Your task to perform on an android device: Search for pizza restaurants on Maps Image 0: 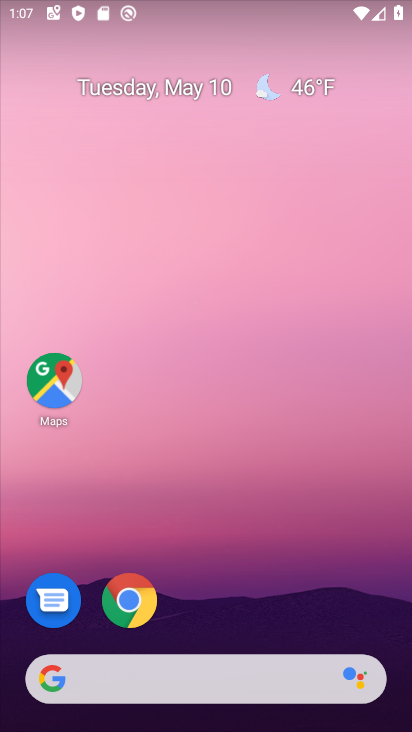
Step 0: press home button
Your task to perform on an android device: Search for pizza restaurants on Maps Image 1: 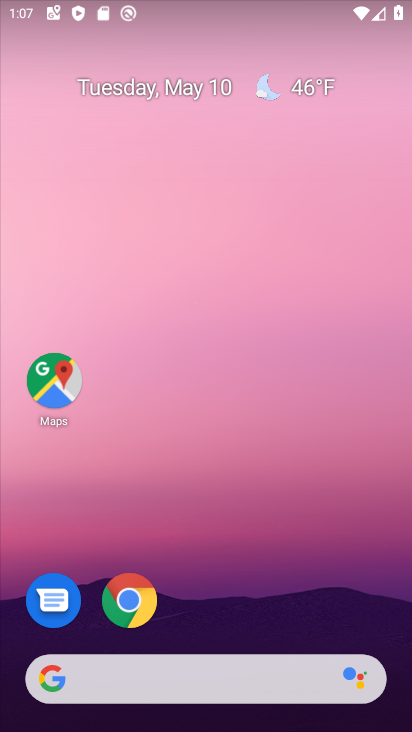
Step 1: drag from (197, 621) to (251, 155)
Your task to perform on an android device: Search for pizza restaurants on Maps Image 2: 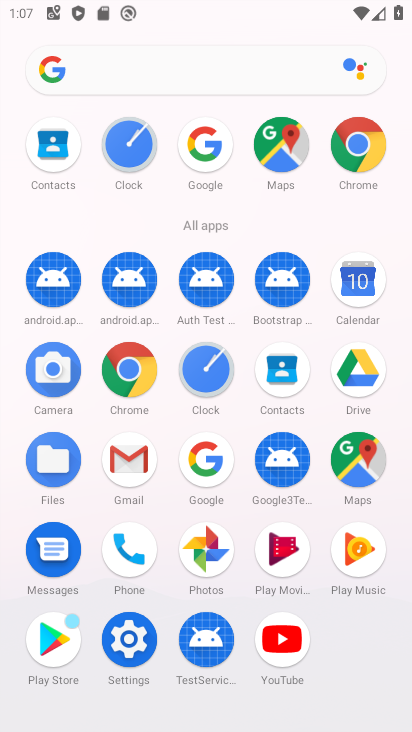
Step 2: click (287, 149)
Your task to perform on an android device: Search for pizza restaurants on Maps Image 3: 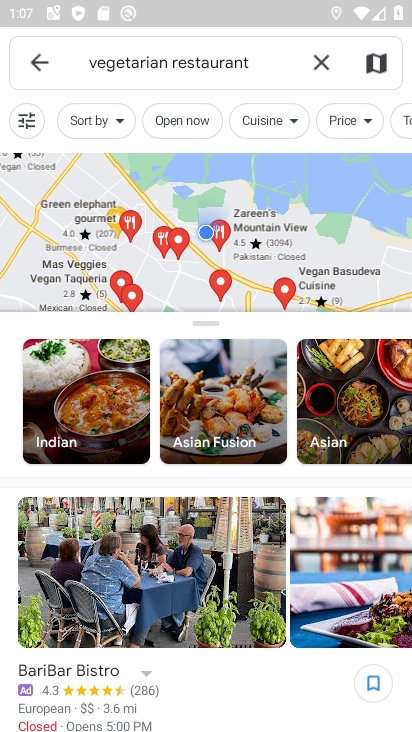
Step 3: click (317, 66)
Your task to perform on an android device: Search for pizza restaurants on Maps Image 4: 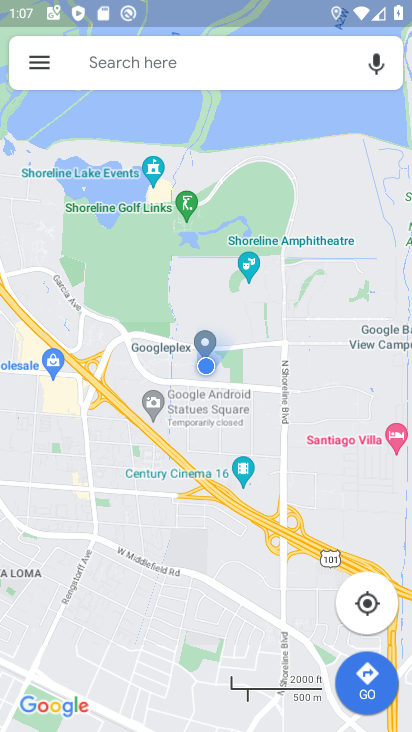
Step 4: click (207, 61)
Your task to perform on an android device: Search for pizza restaurants on Maps Image 5: 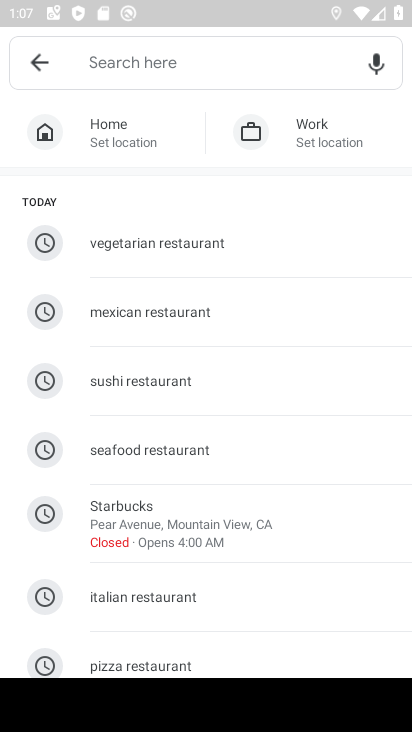
Step 5: click (166, 661)
Your task to perform on an android device: Search for pizza restaurants on Maps Image 6: 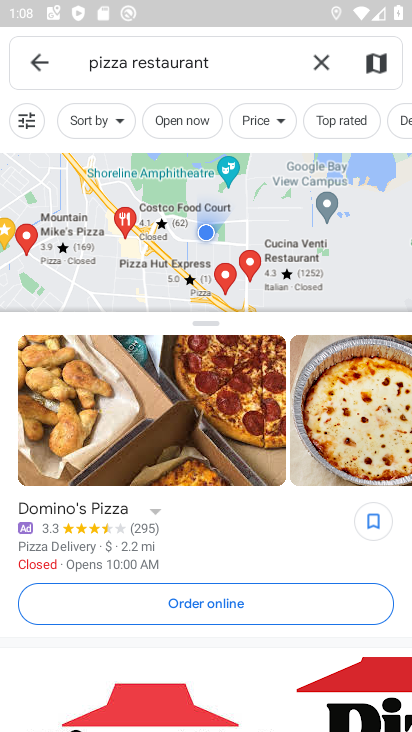
Step 6: task complete